Your task to perform on an android device: turn smart compose on in the gmail app Image 0: 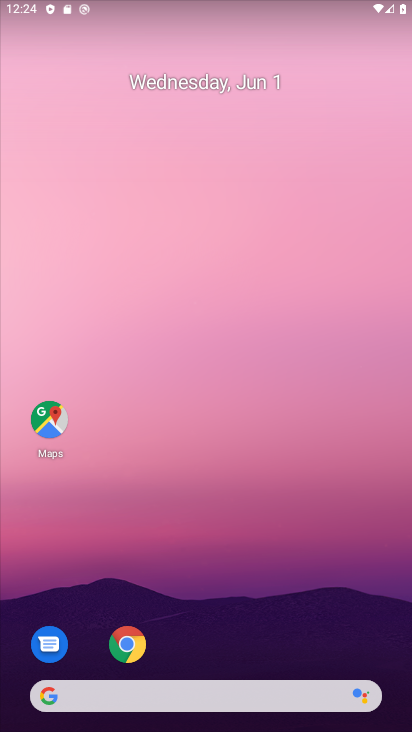
Step 0: drag from (226, 624) to (227, 30)
Your task to perform on an android device: turn smart compose on in the gmail app Image 1: 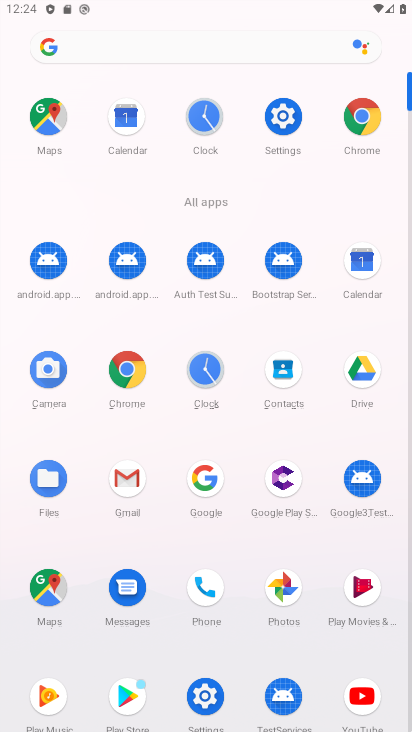
Step 1: click (133, 474)
Your task to perform on an android device: turn smart compose on in the gmail app Image 2: 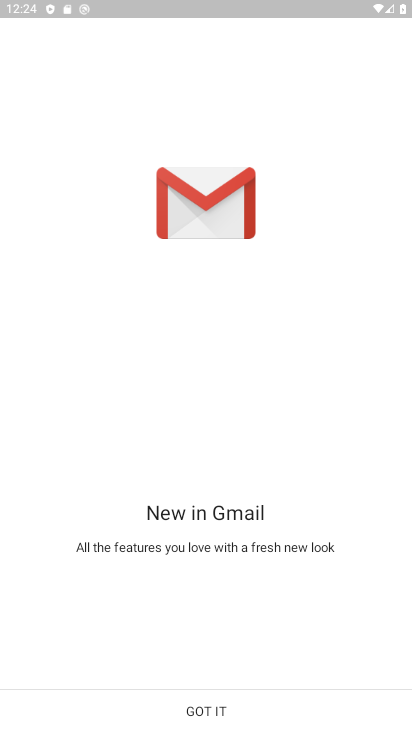
Step 2: click (177, 701)
Your task to perform on an android device: turn smart compose on in the gmail app Image 3: 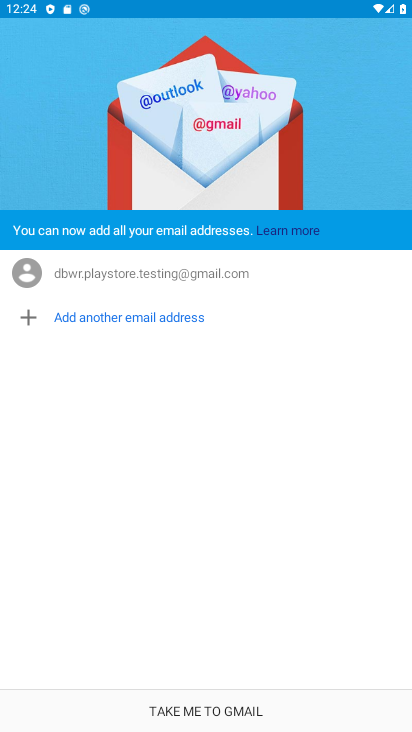
Step 3: click (368, 689)
Your task to perform on an android device: turn smart compose on in the gmail app Image 4: 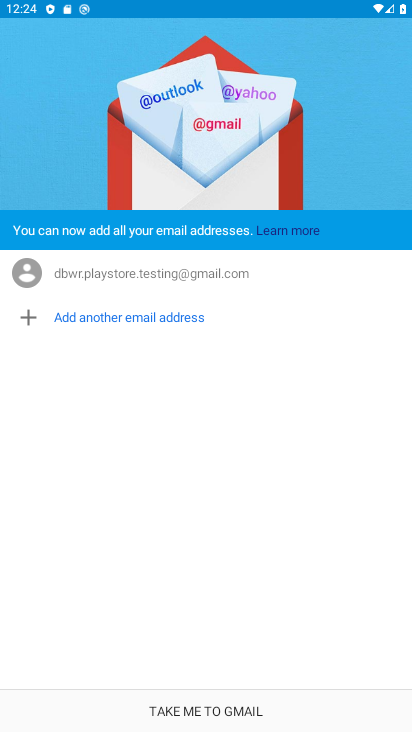
Step 4: click (295, 721)
Your task to perform on an android device: turn smart compose on in the gmail app Image 5: 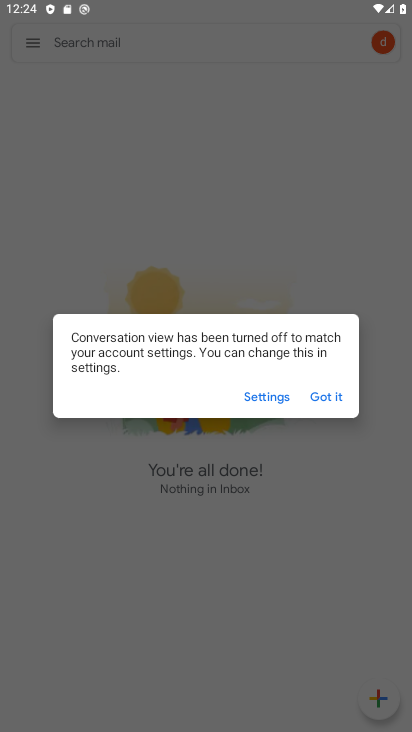
Step 5: click (316, 403)
Your task to perform on an android device: turn smart compose on in the gmail app Image 6: 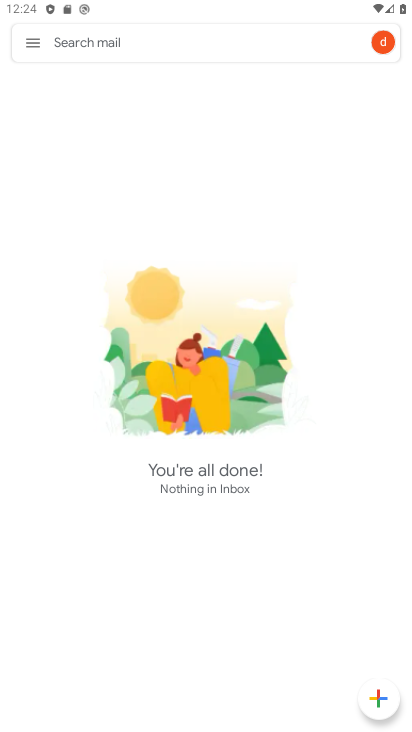
Step 6: click (31, 38)
Your task to perform on an android device: turn smart compose on in the gmail app Image 7: 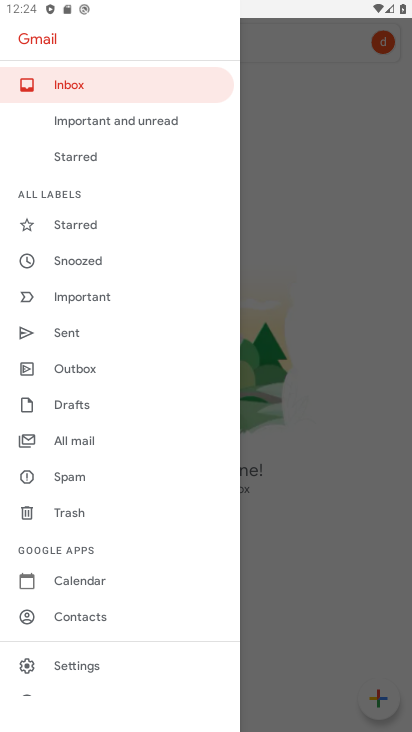
Step 7: click (85, 670)
Your task to perform on an android device: turn smart compose on in the gmail app Image 8: 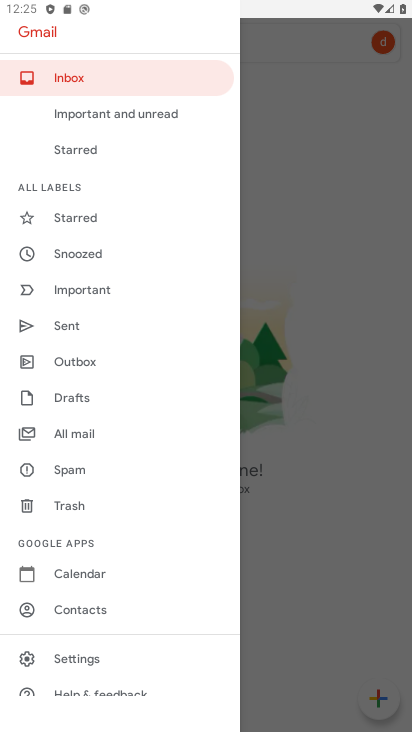
Step 8: click (96, 650)
Your task to perform on an android device: turn smart compose on in the gmail app Image 9: 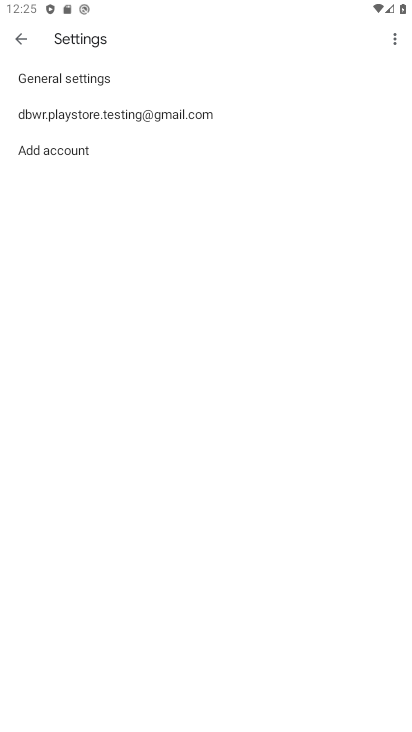
Step 9: click (205, 114)
Your task to perform on an android device: turn smart compose on in the gmail app Image 10: 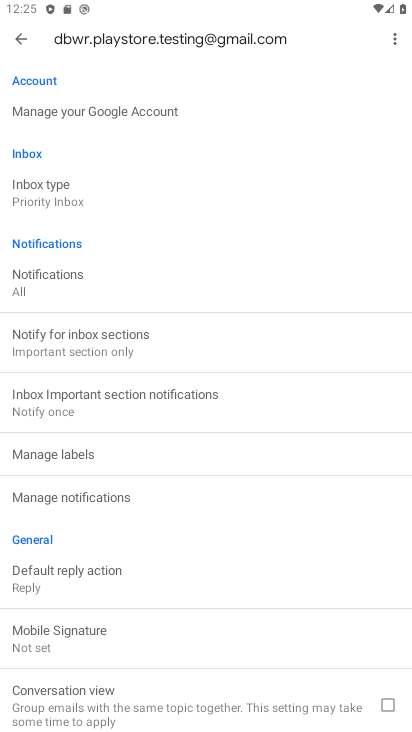
Step 10: task complete